Your task to perform on an android device: Show me recent news Image 0: 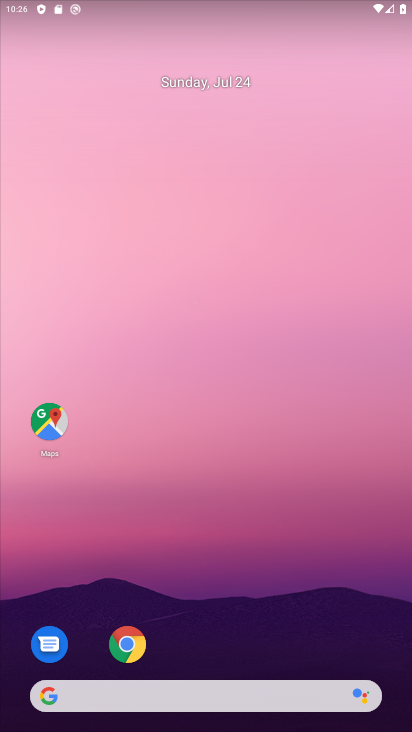
Step 0: click (257, 19)
Your task to perform on an android device: Show me recent news Image 1: 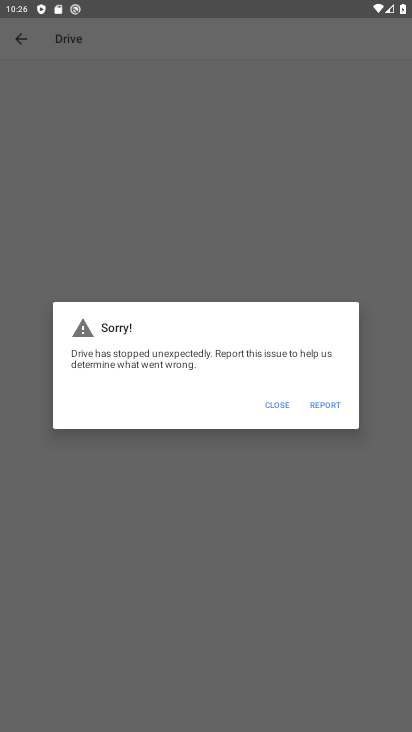
Step 1: press home button
Your task to perform on an android device: Show me recent news Image 2: 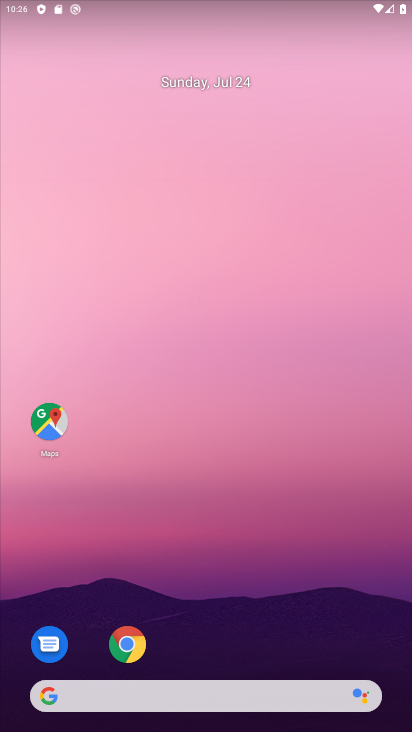
Step 2: click (86, 686)
Your task to perform on an android device: Show me recent news Image 3: 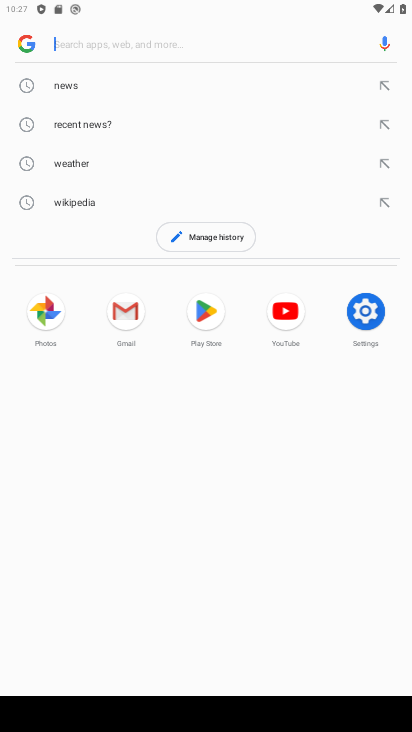
Step 3: type "recent news"
Your task to perform on an android device: Show me recent news Image 4: 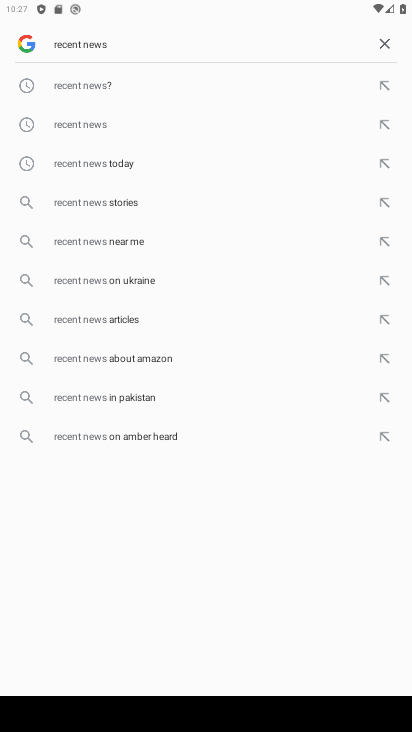
Step 4: click (101, 127)
Your task to perform on an android device: Show me recent news Image 5: 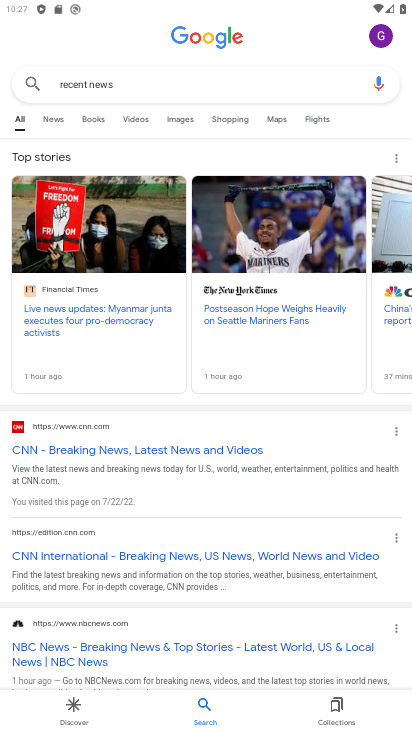
Step 5: click (397, 265)
Your task to perform on an android device: Show me recent news Image 6: 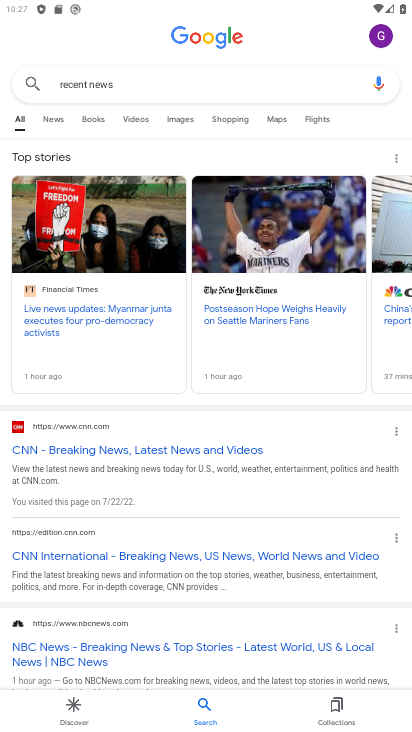
Step 6: click (406, 309)
Your task to perform on an android device: Show me recent news Image 7: 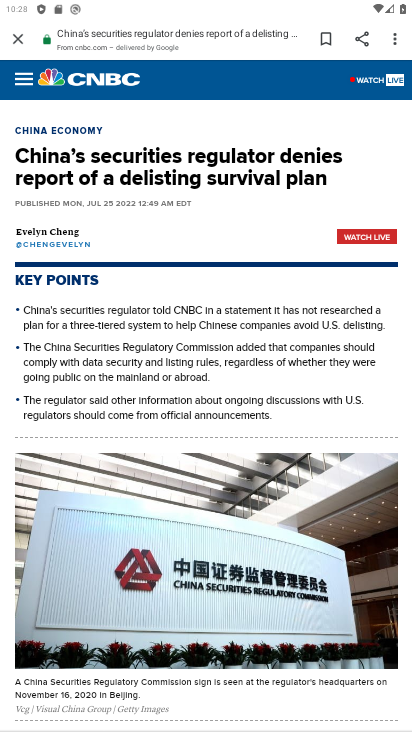
Step 7: task complete